Your task to perform on an android device: move a message to another label in the gmail app Image 0: 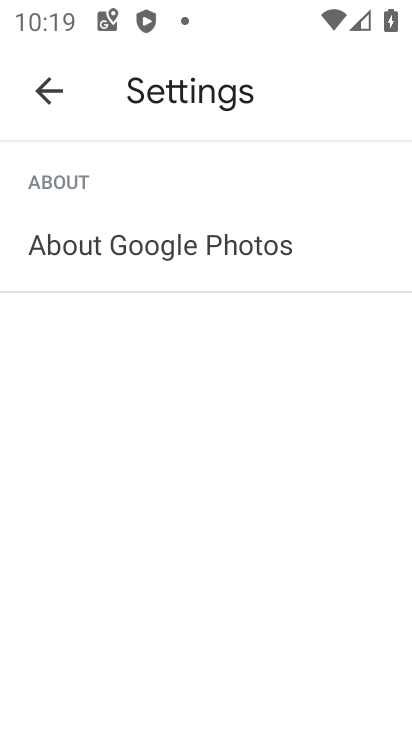
Step 0: press home button
Your task to perform on an android device: move a message to another label in the gmail app Image 1: 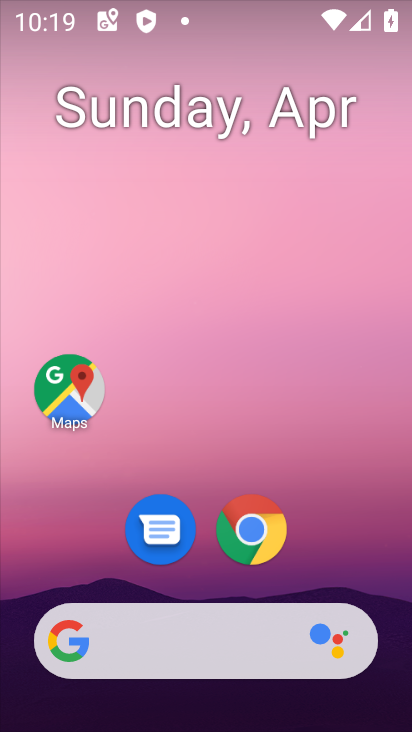
Step 1: drag from (204, 580) to (288, 47)
Your task to perform on an android device: move a message to another label in the gmail app Image 2: 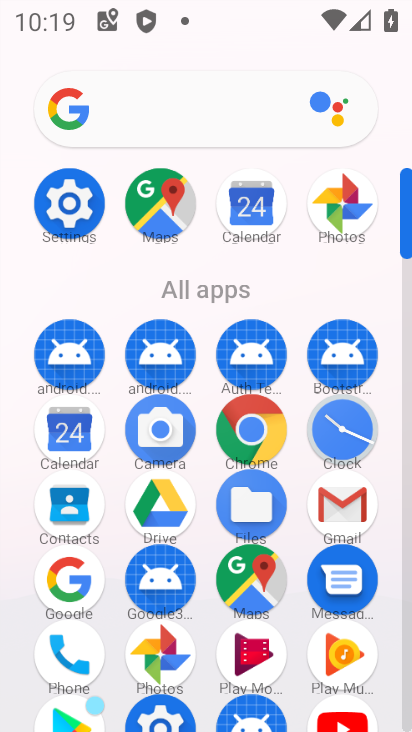
Step 2: click (327, 501)
Your task to perform on an android device: move a message to another label in the gmail app Image 3: 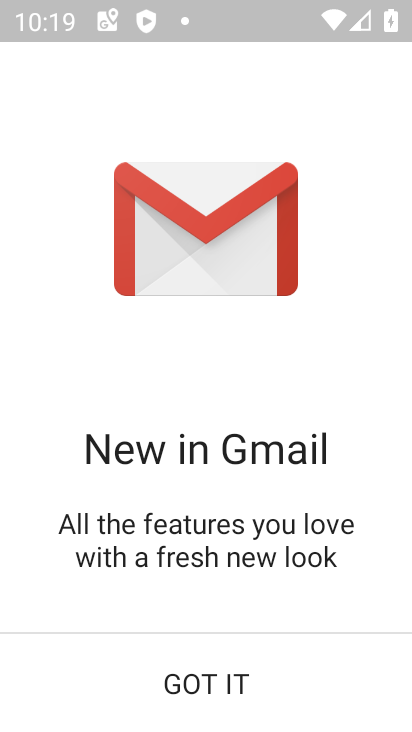
Step 3: click (207, 676)
Your task to perform on an android device: move a message to another label in the gmail app Image 4: 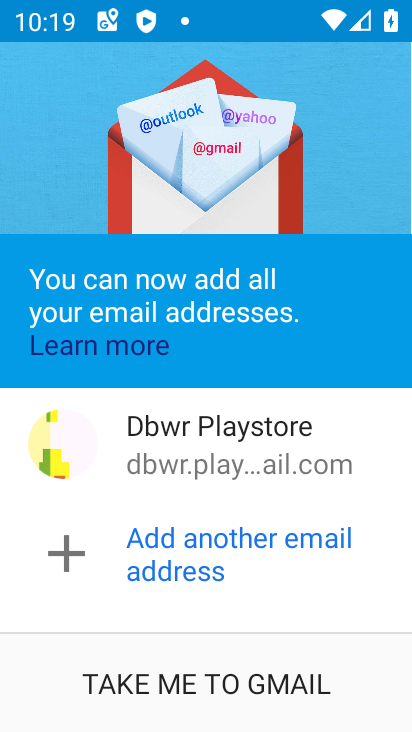
Step 4: click (207, 676)
Your task to perform on an android device: move a message to another label in the gmail app Image 5: 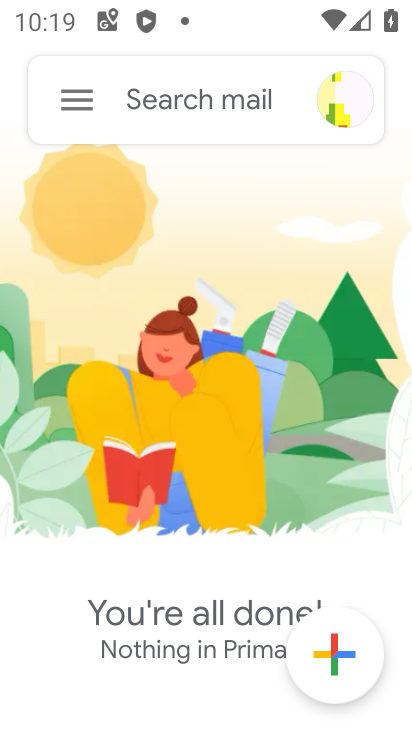
Step 5: click (80, 110)
Your task to perform on an android device: move a message to another label in the gmail app Image 6: 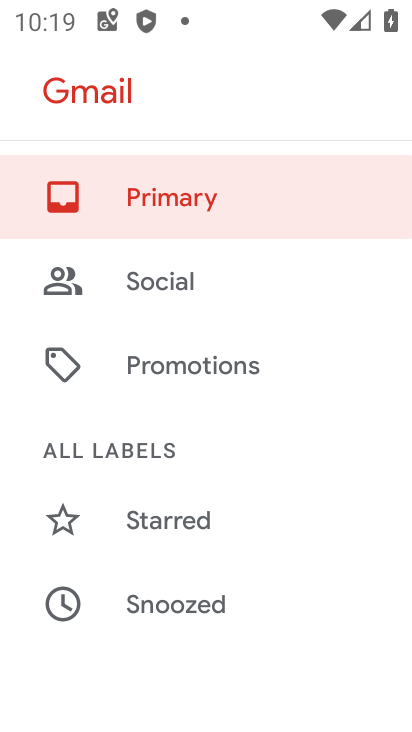
Step 6: click (203, 209)
Your task to perform on an android device: move a message to another label in the gmail app Image 7: 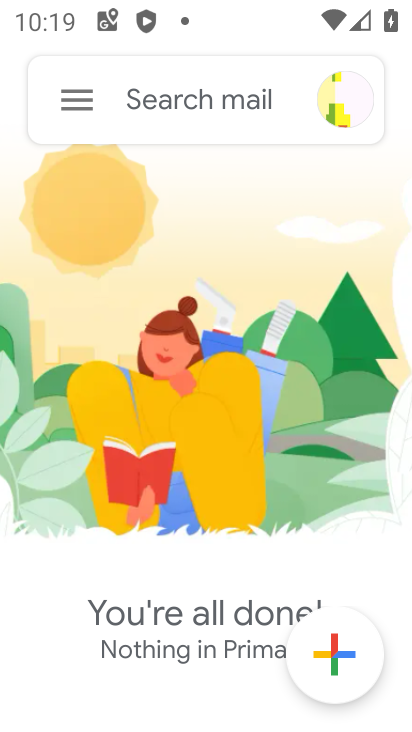
Step 7: task complete